Your task to perform on an android device: Show me popular games on the Play Store Image 0: 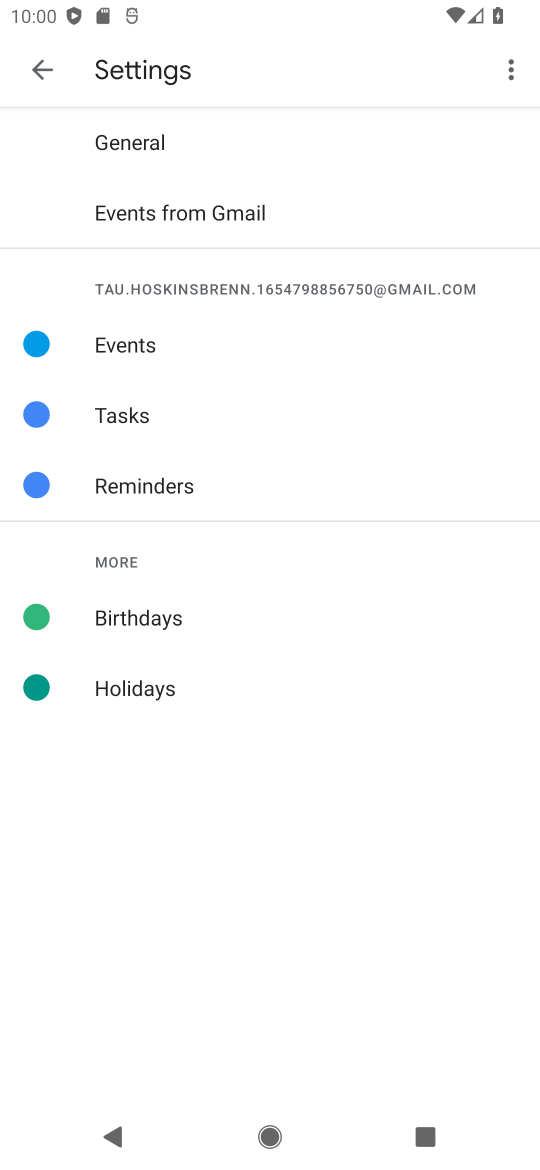
Step 0: press home button
Your task to perform on an android device: Show me popular games on the Play Store Image 1: 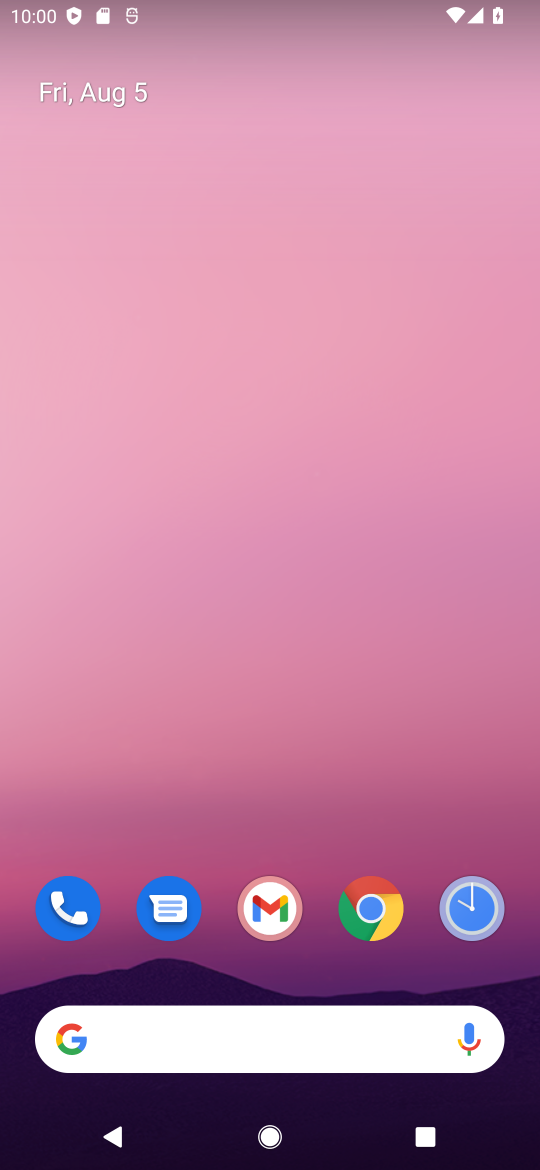
Step 1: task complete